Your task to perform on an android device: Open maps Image 0: 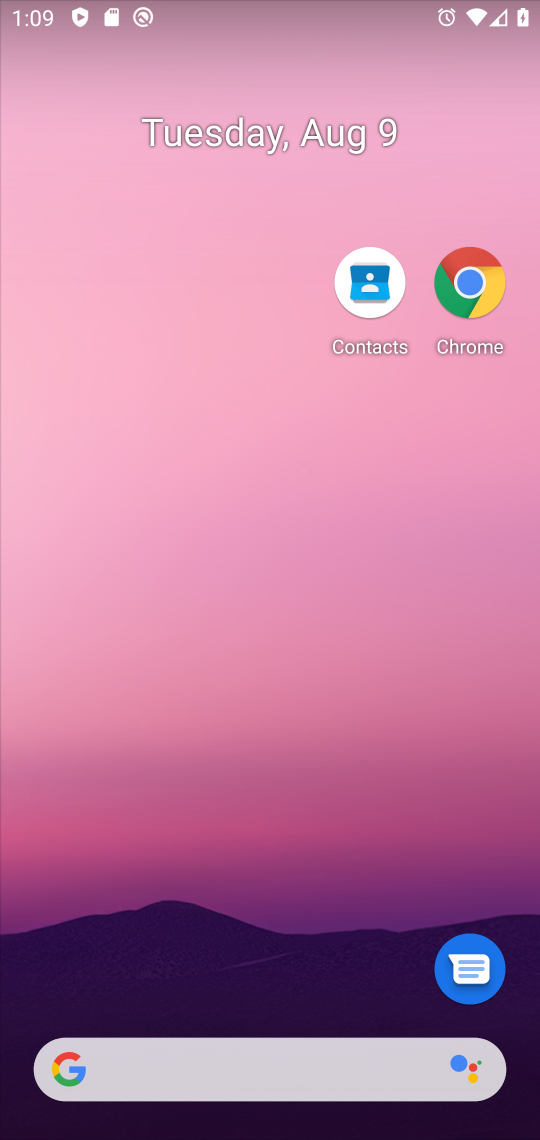
Step 0: drag from (299, 528) to (343, 134)
Your task to perform on an android device: Open maps Image 1: 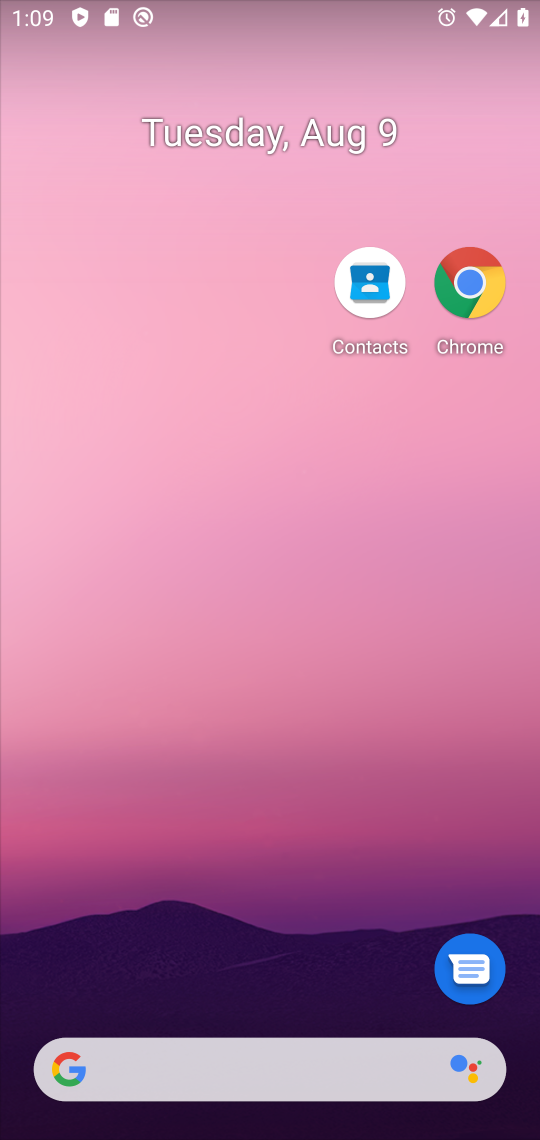
Step 1: drag from (259, 594) to (229, 0)
Your task to perform on an android device: Open maps Image 2: 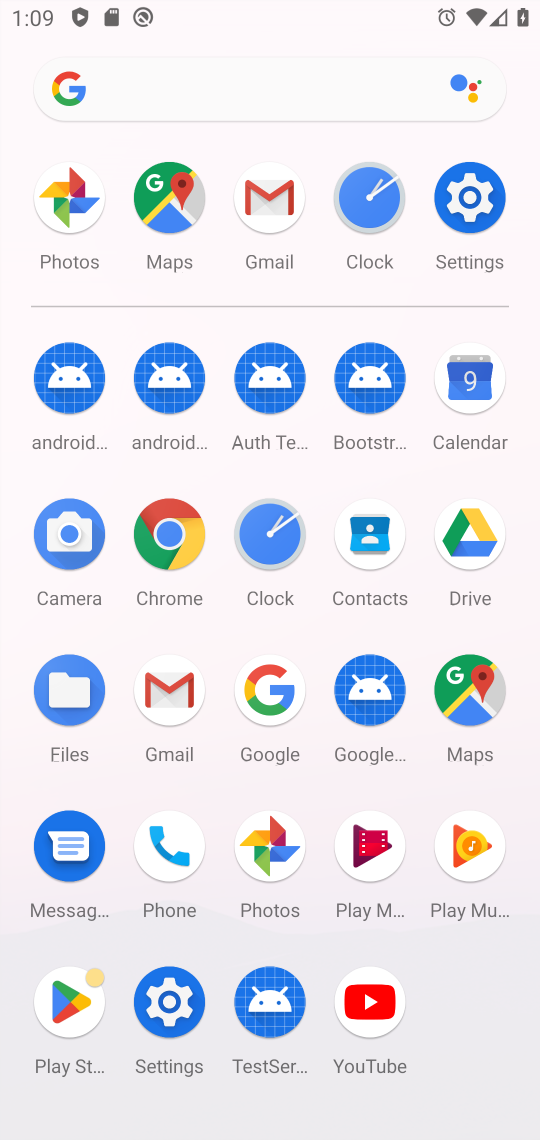
Step 2: click (491, 681)
Your task to perform on an android device: Open maps Image 3: 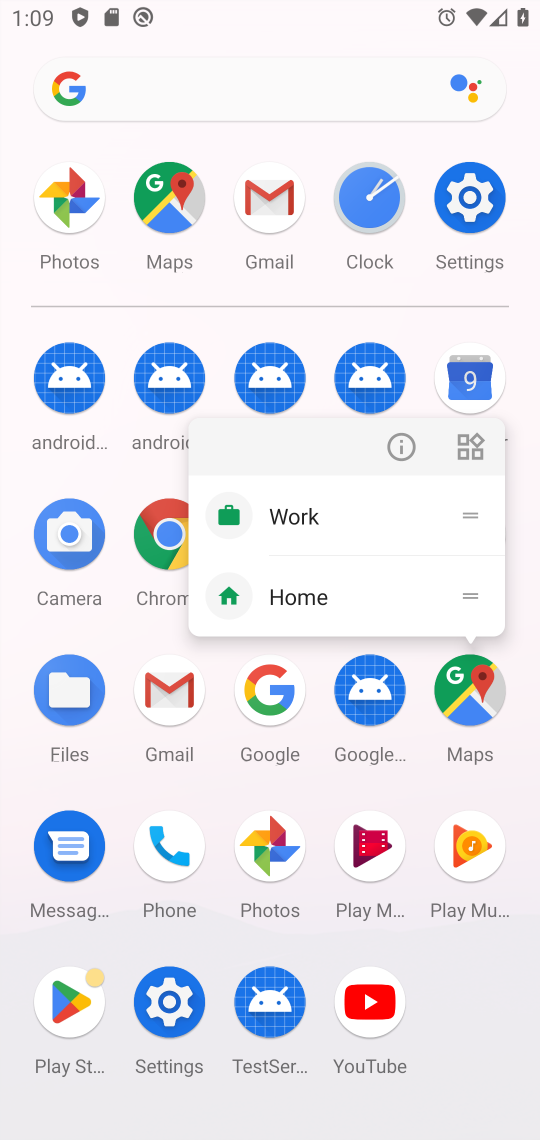
Step 3: click (414, 450)
Your task to perform on an android device: Open maps Image 4: 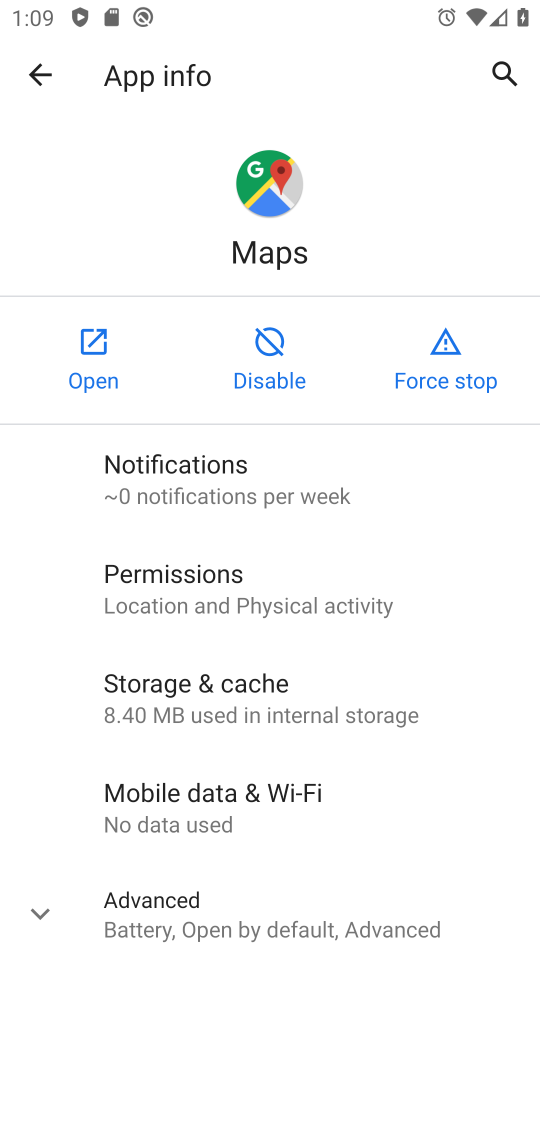
Step 4: click (67, 330)
Your task to perform on an android device: Open maps Image 5: 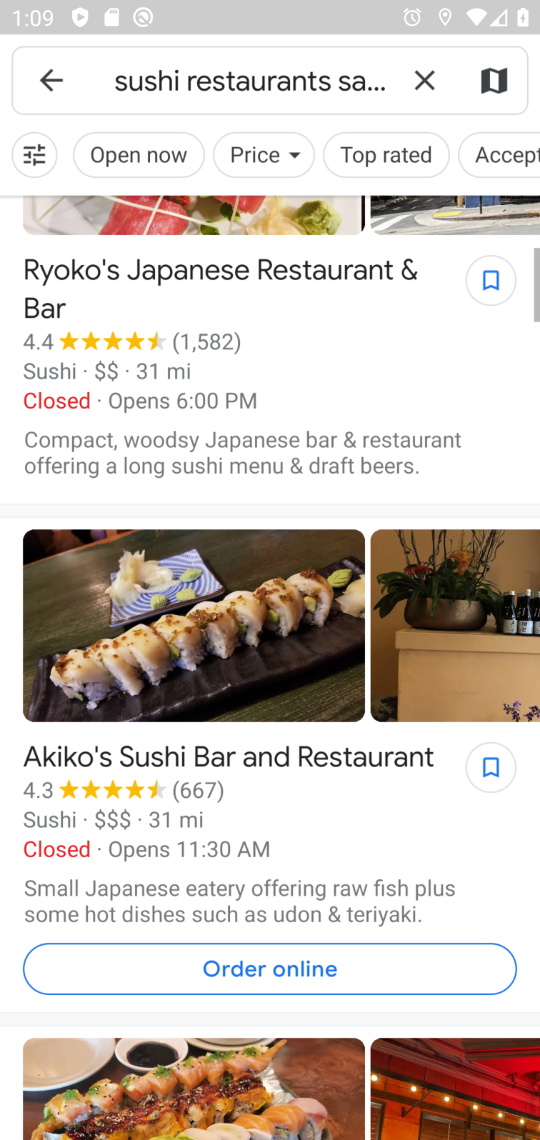
Step 5: task complete